Your task to perform on an android device: Open privacy settings Image 0: 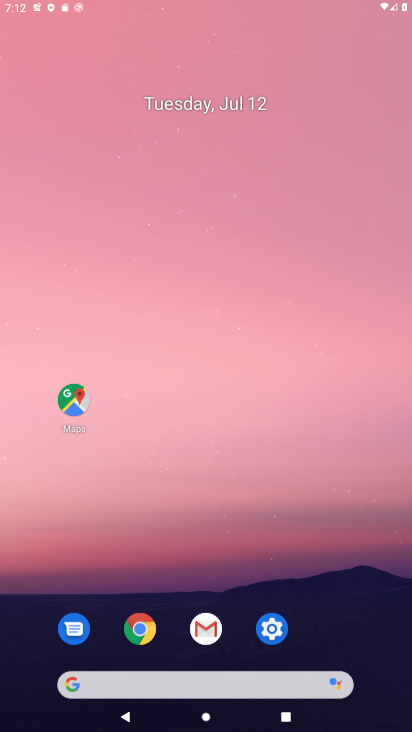
Step 0: drag from (239, 155) to (230, 300)
Your task to perform on an android device: Open privacy settings Image 1: 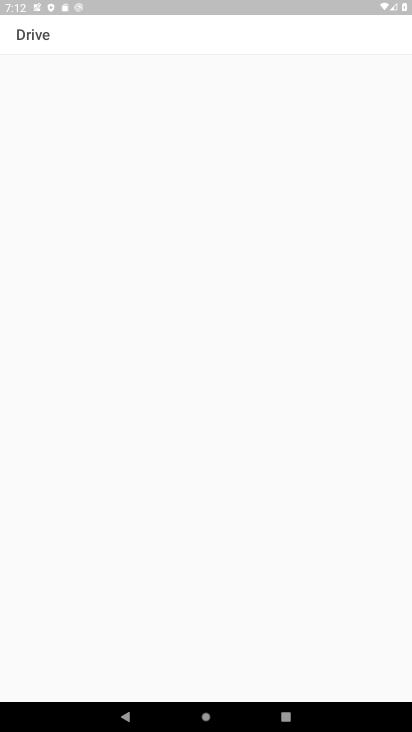
Step 1: press home button
Your task to perform on an android device: Open privacy settings Image 2: 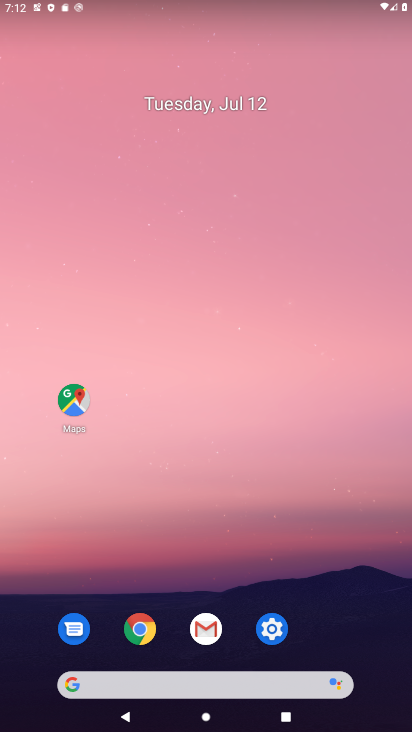
Step 2: drag from (241, 695) to (218, 148)
Your task to perform on an android device: Open privacy settings Image 3: 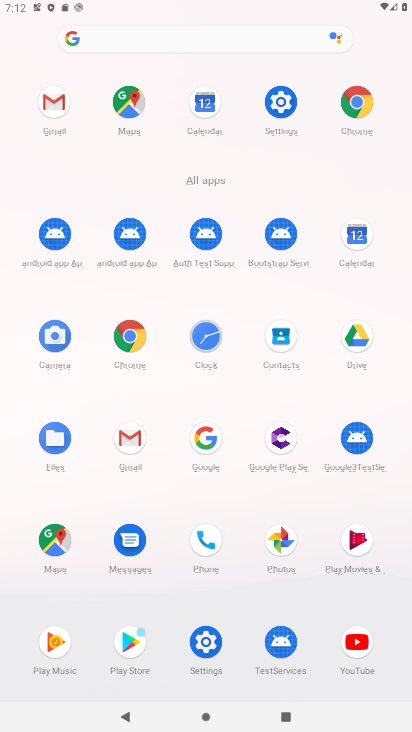
Step 3: click (206, 653)
Your task to perform on an android device: Open privacy settings Image 4: 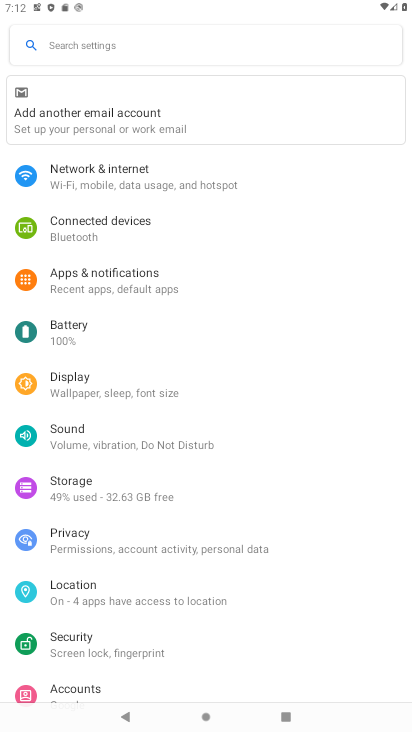
Step 4: click (122, 543)
Your task to perform on an android device: Open privacy settings Image 5: 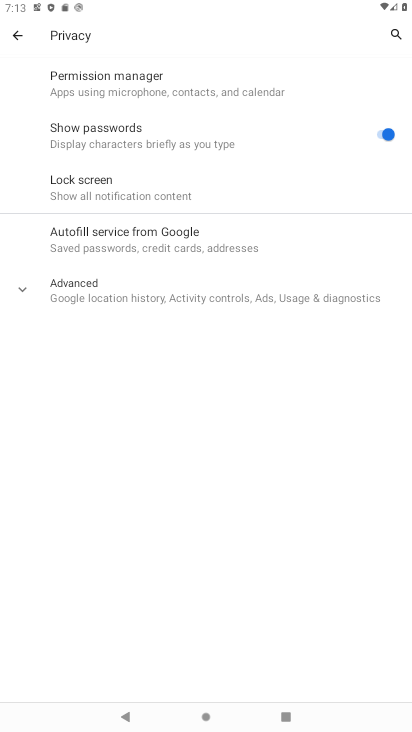
Step 5: task complete